Your task to perform on an android device: What's the weather? Image 0: 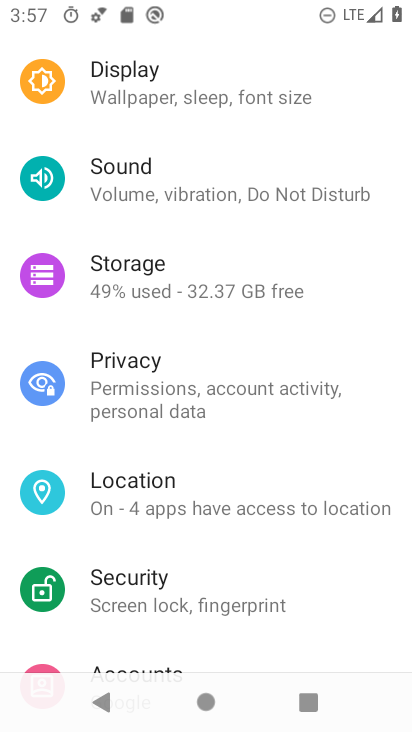
Step 0: press home button
Your task to perform on an android device: What's the weather? Image 1: 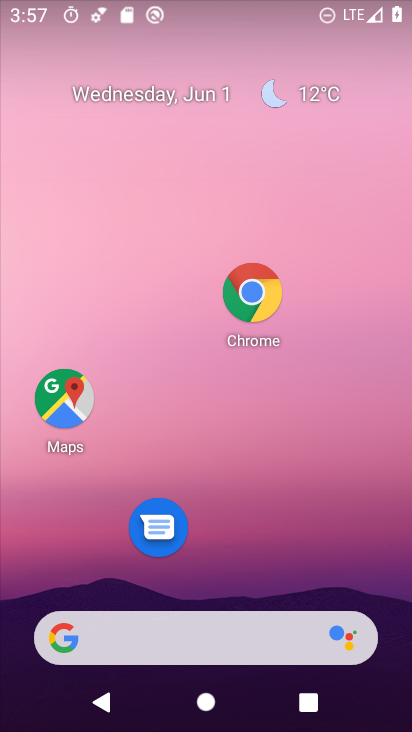
Step 1: drag from (200, 635) to (220, 174)
Your task to perform on an android device: What's the weather? Image 2: 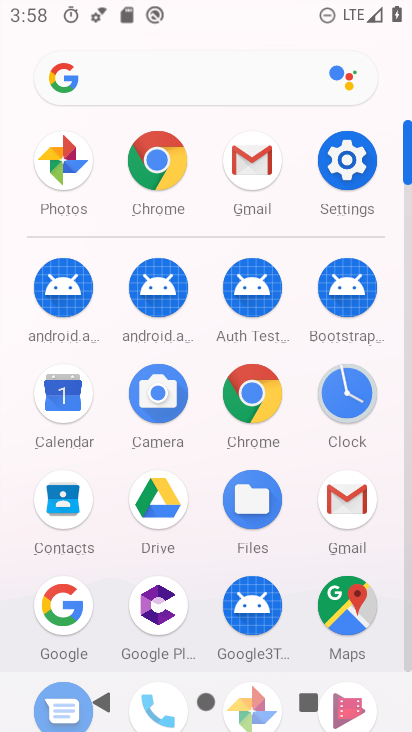
Step 2: click (79, 615)
Your task to perform on an android device: What's the weather? Image 3: 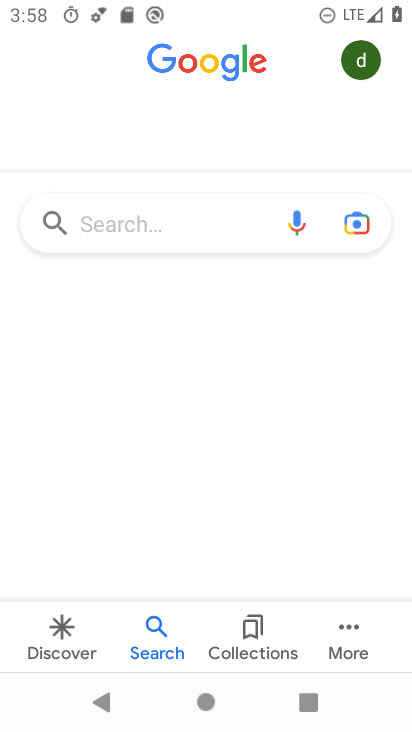
Step 3: click (169, 207)
Your task to perform on an android device: What's the weather? Image 4: 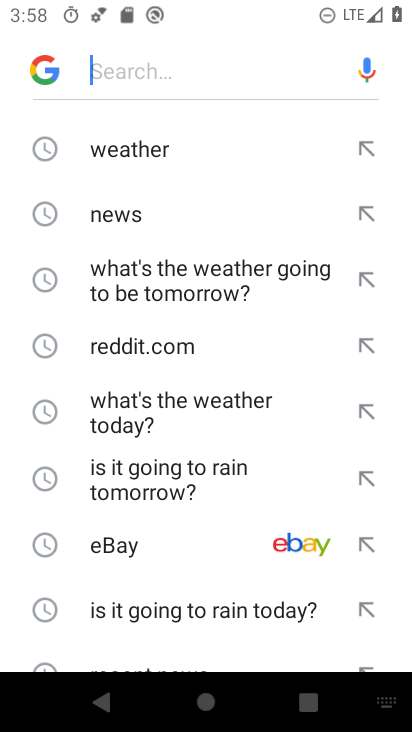
Step 4: click (173, 160)
Your task to perform on an android device: What's the weather? Image 5: 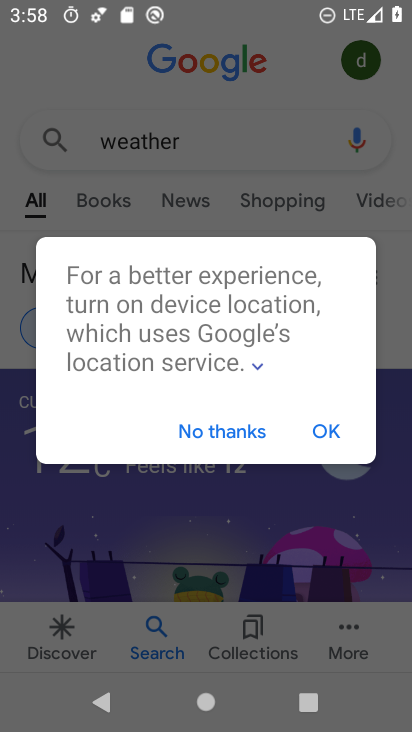
Step 5: click (330, 438)
Your task to perform on an android device: What's the weather? Image 6: 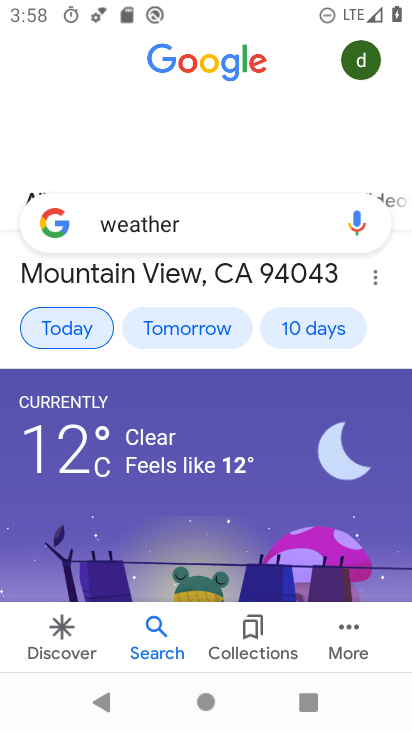
Step 6: task complete